Your task to perform on an android device: Open the web browser Image 0: 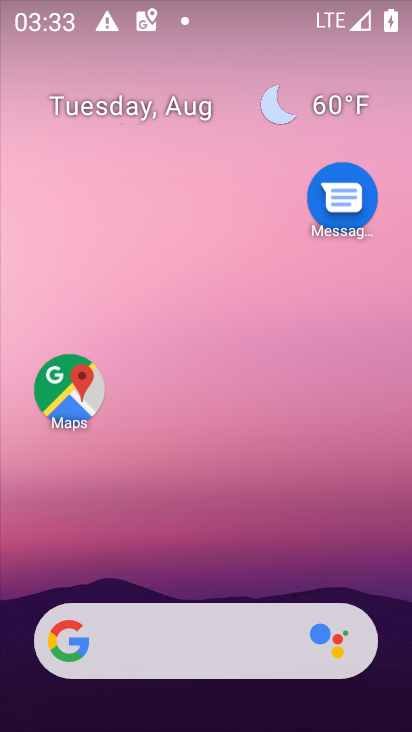
Step 0: drag from (258, 589) to (243, 84)
Your task to perform on an android device: Open the web browser Image 1: 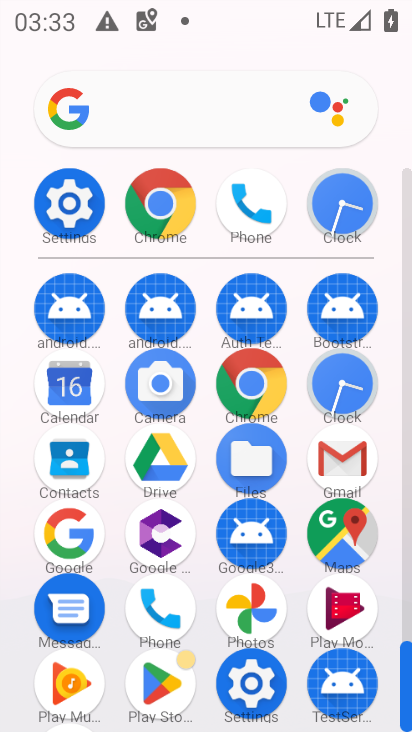
Step 1: click (165, 226)
Your task to perform on an android device: Open the web browser Image 2: 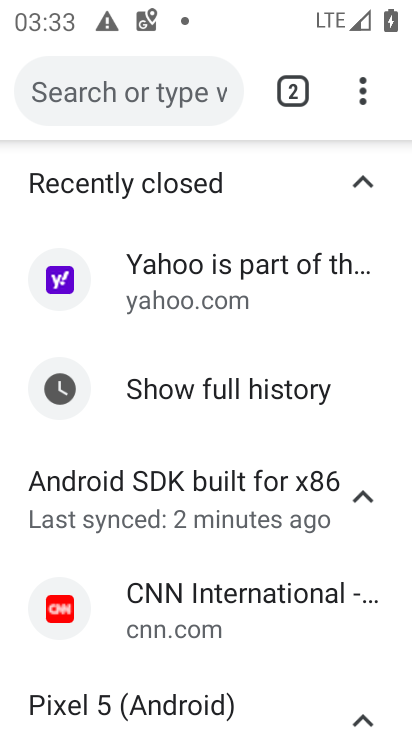
Step 2: task complete